Your task to perform on an android device: Go to privacy settings Image 0: 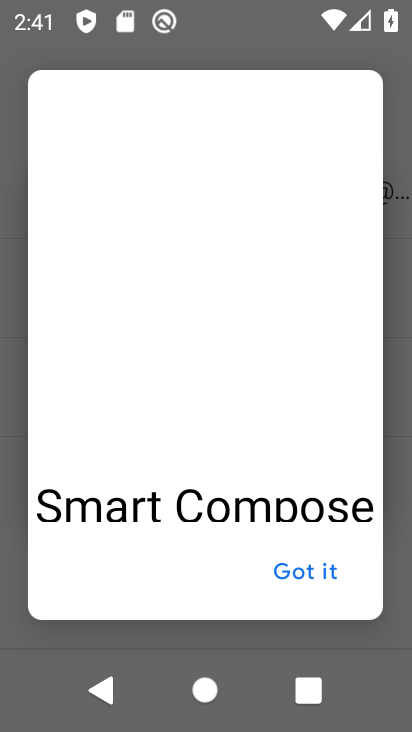
Step 0: press home button
Your task to perform on an android device: Go to privacy settings Image 1: 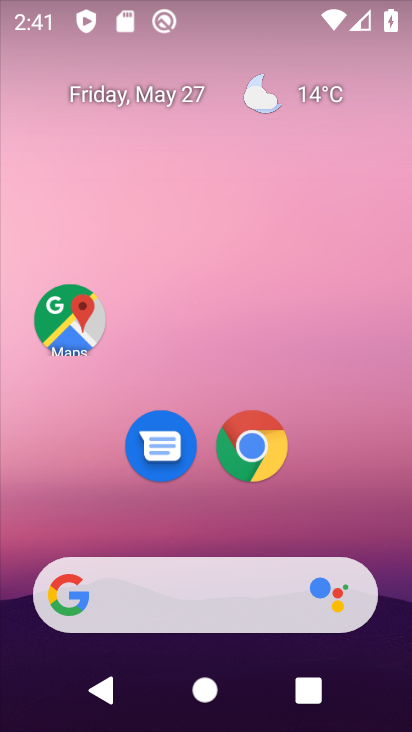
Step 1: drag from (222, 590) to (299, 155)
Your task to perform on an android device: Go to privacy settings Image 2: 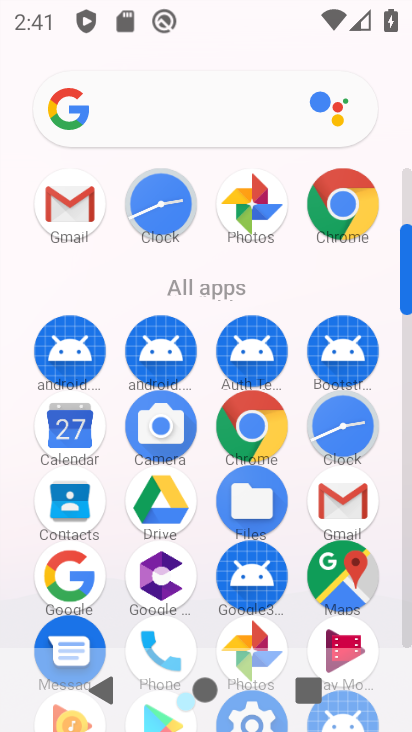
Step 2: drag from (204, 574) to (314, 178)
Your task to perform on an android device: Go to privacy settings Image 3: 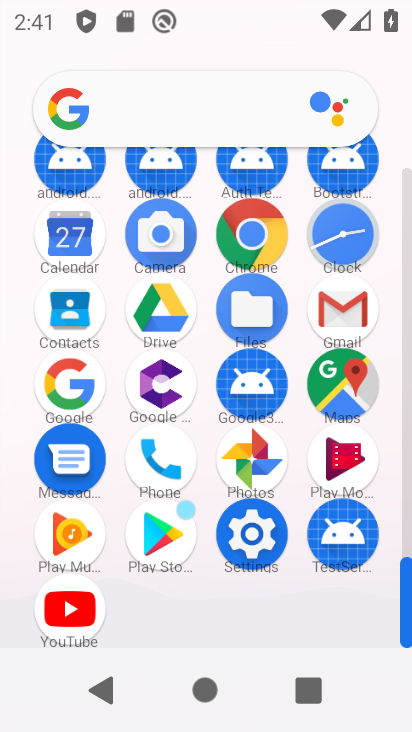
Step 3: click (253, 536)
Your task to perform on an android device: Go to privacy settings Image 4: 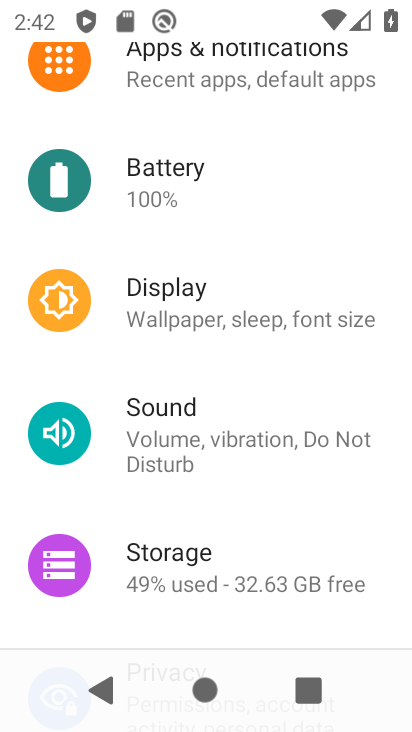
Step 4: drag from (295, 162) to (216, 610)
Your task to perform on an android device: Go to privacy settings Image 5: 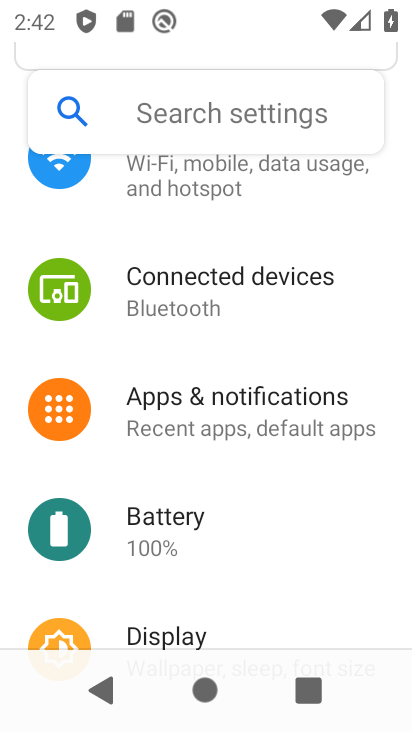
Step 5: drag from (277, 320) to (252, 522)
Your task to perform on an android device: Go to privacy settings Image 6: 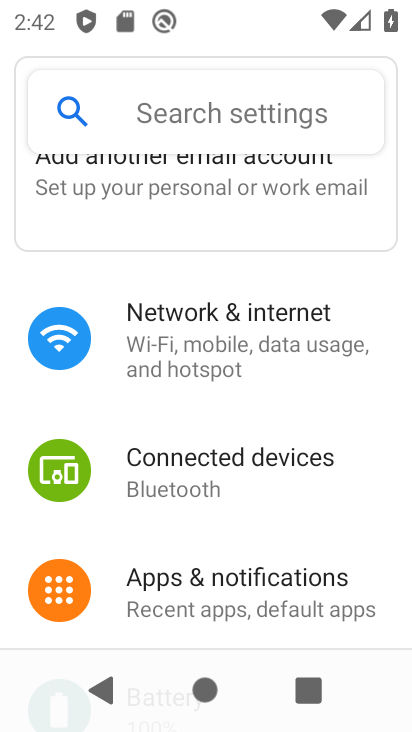
Step 6: drag from (257, 544) to (384, 111)
Your task to perform on an android device: Go to privacy settings Image 7: 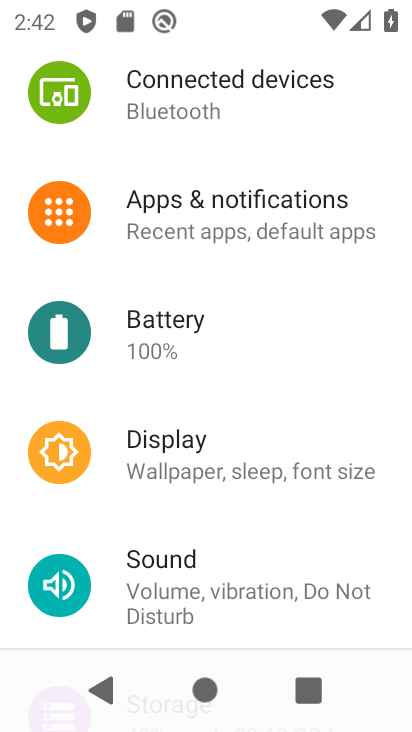
Step 7: drag from (260, 563) to (381, 28)
Your task to perform on an android device: Go to privacy settings Image 8: 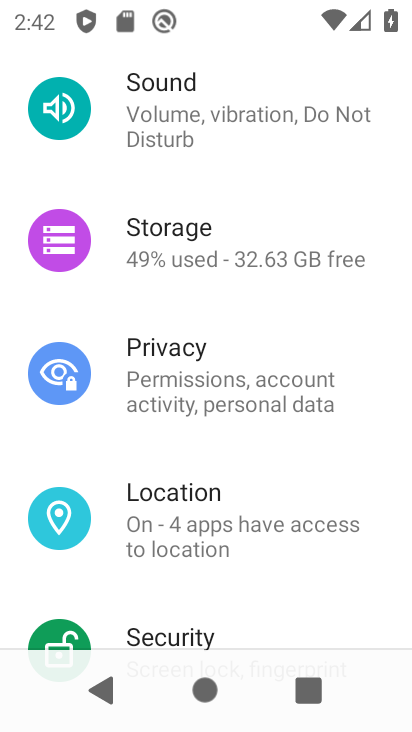
Step 8: click (179, 345)
Your task to perform on an android device: Go to privacy settings Image 9: 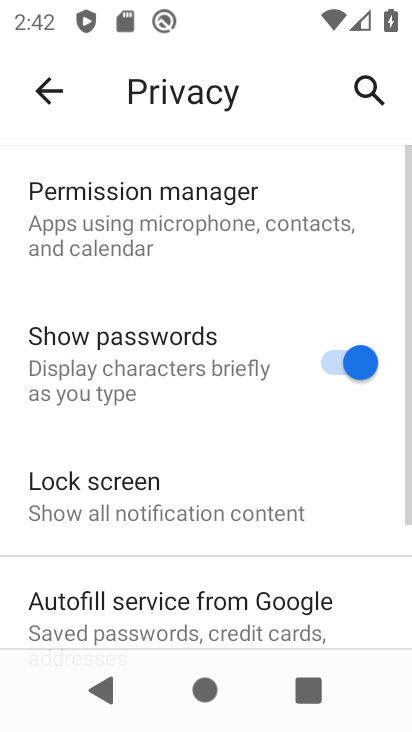
Step 9: task complete